Your task to perform on an android device: Open wifi settings Image 0: 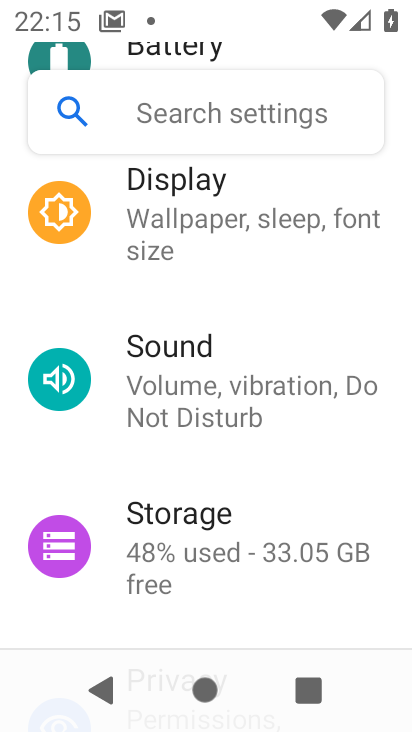
Step 0: drag from (153, 178) to (202, 594)
Your task to perform on an android device: Open wifi settings Image 1: 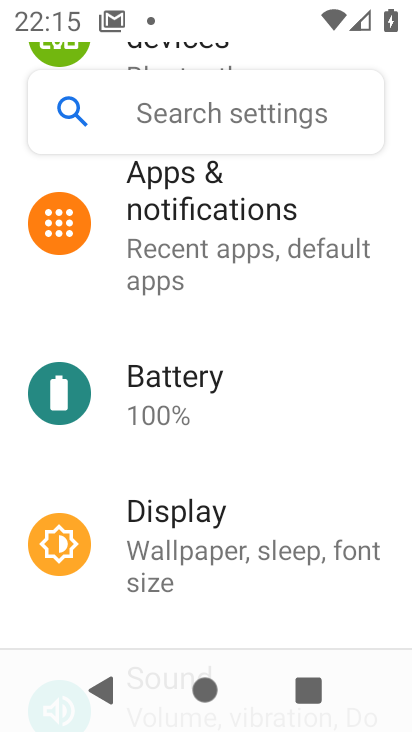
Step 1: drag from (203, 170) to (266, 515)
Your task to perform on an android device: Open wifi settings Image 2: 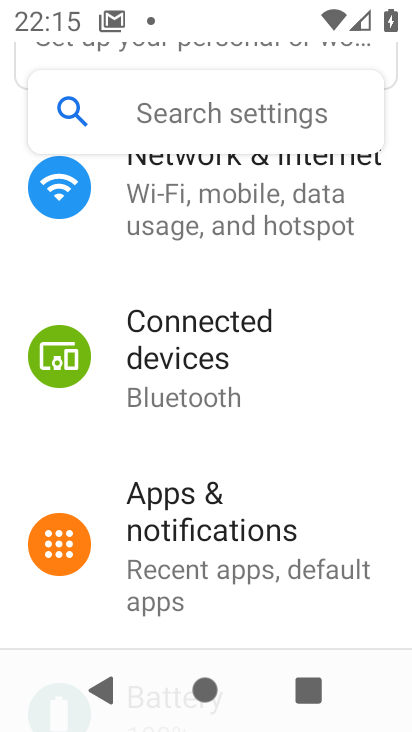
Step 2: drag from (215, 206) to (271, 421)
Your task to perform on an android device: Open wifi settings Image 3: 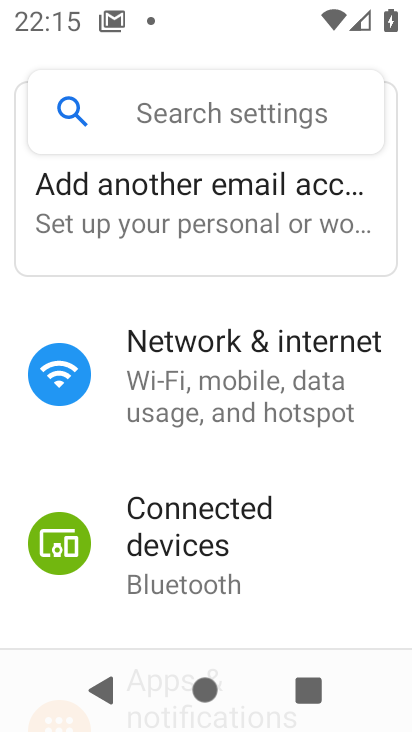
Step 3: click (226, 351)
Your task to perform on an android device: Open wifi settings Image 4: 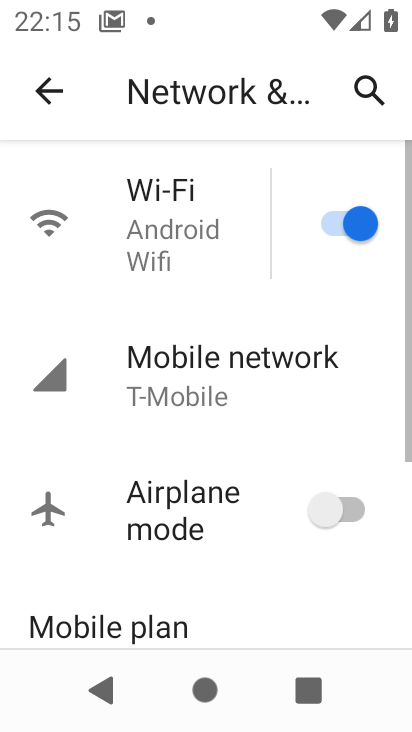
Step 4: click (178, 238)
Your task to perform on an android device: Open wifi settings Image 5: 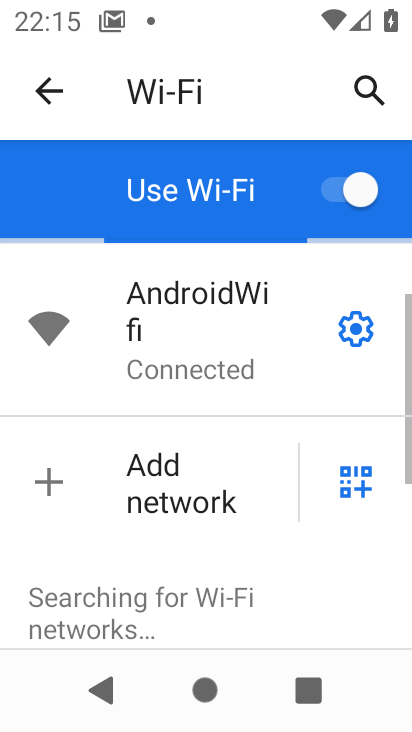
Step 5: task complete